Your task to perform on an android device: open app "DoorDash - Food Delivery" Image 0: 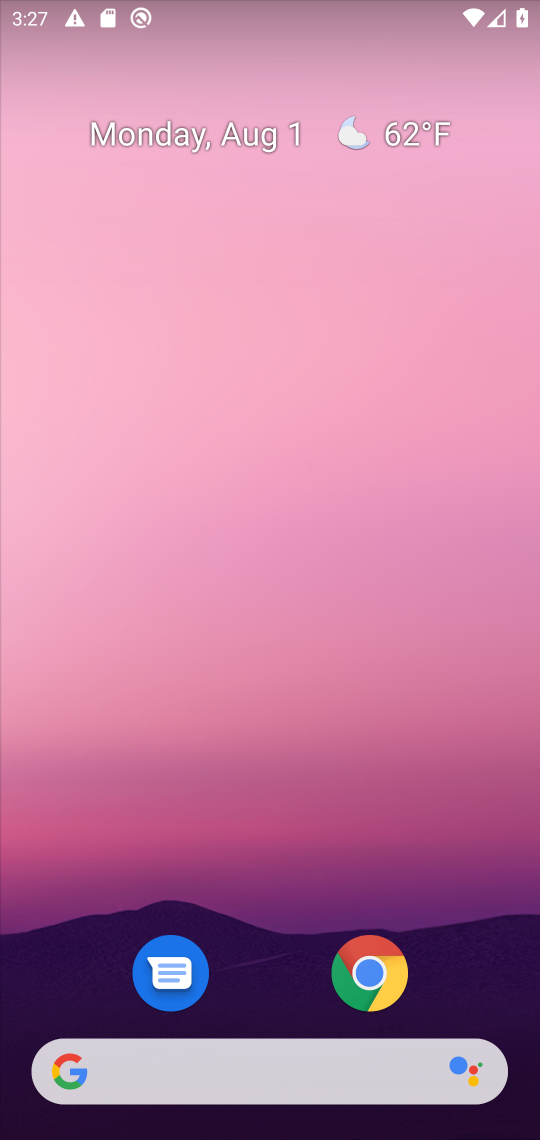
Step 0: click (330, 14)
Your task to perform on an android device: open app "DoorDash - Food Delivery" Image 1: 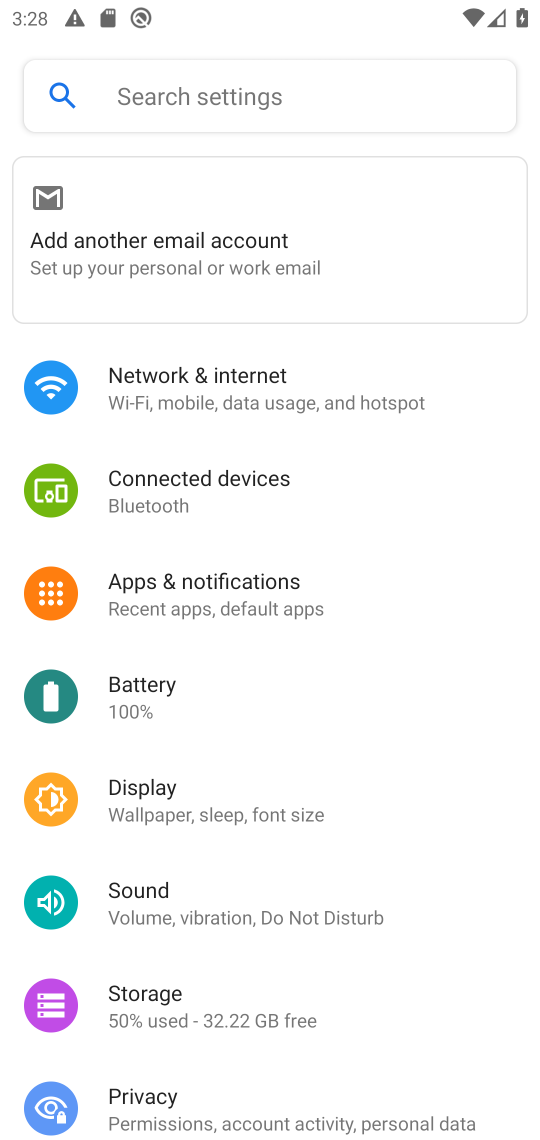
Step 1: press back button
Your task to perform on an android device: open app "DoorDash - Food Delivery" Image 2: 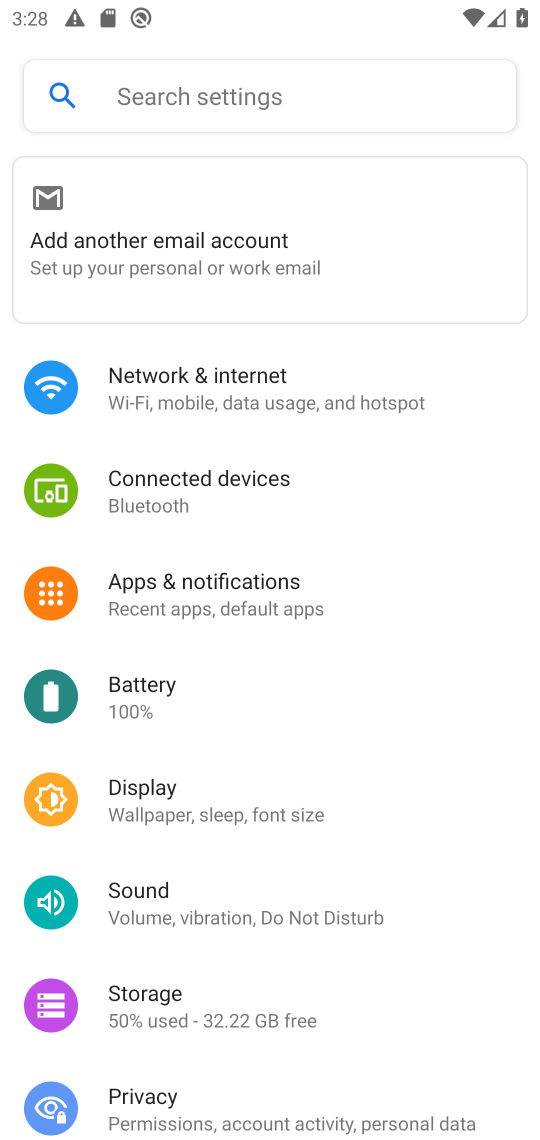
Step 2: press back button
Your task to perform on an android device: open app "DoorDash - Food Delivery" Image 3: 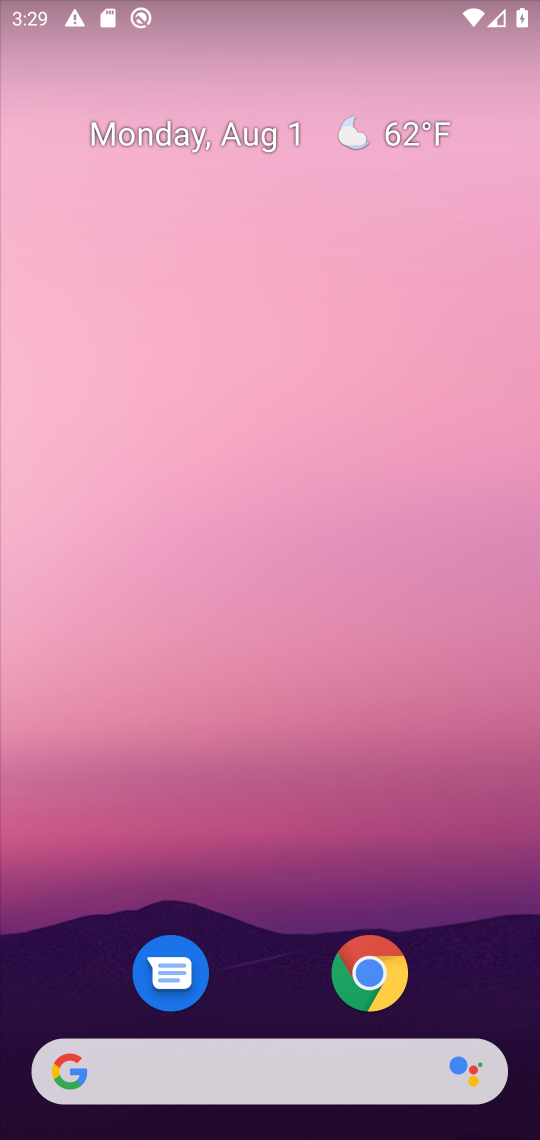
Step 3: drag from (294, 676) to (214, 263)
Your task to perform on an android device: open app "DoorDash - Food Delivery" Image 4: 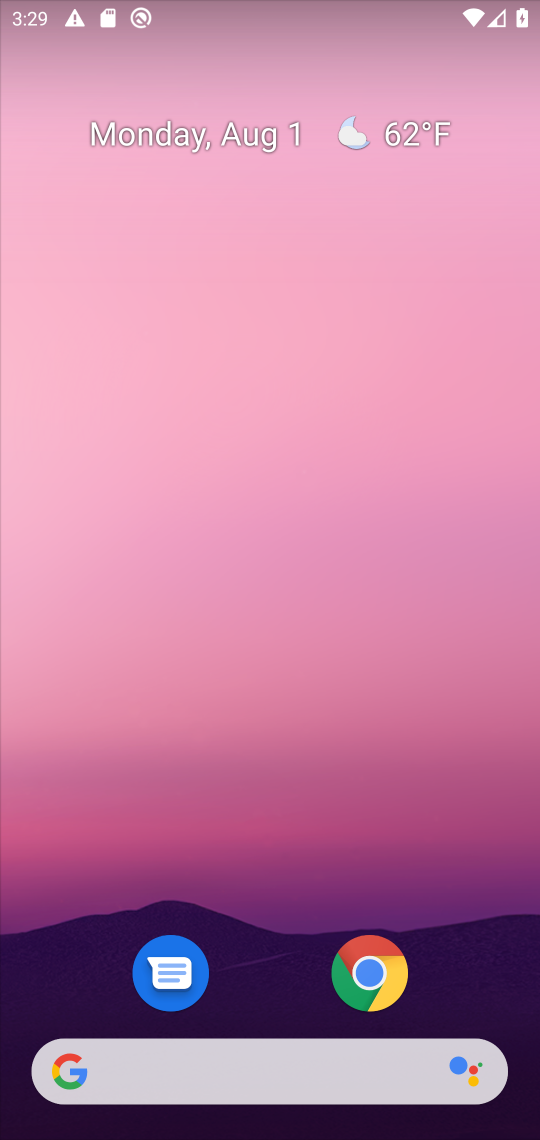
Step 4: click (97, 145)
Your task to perform on an android device: open app "DoorDash - Food Delivery" Image 5: 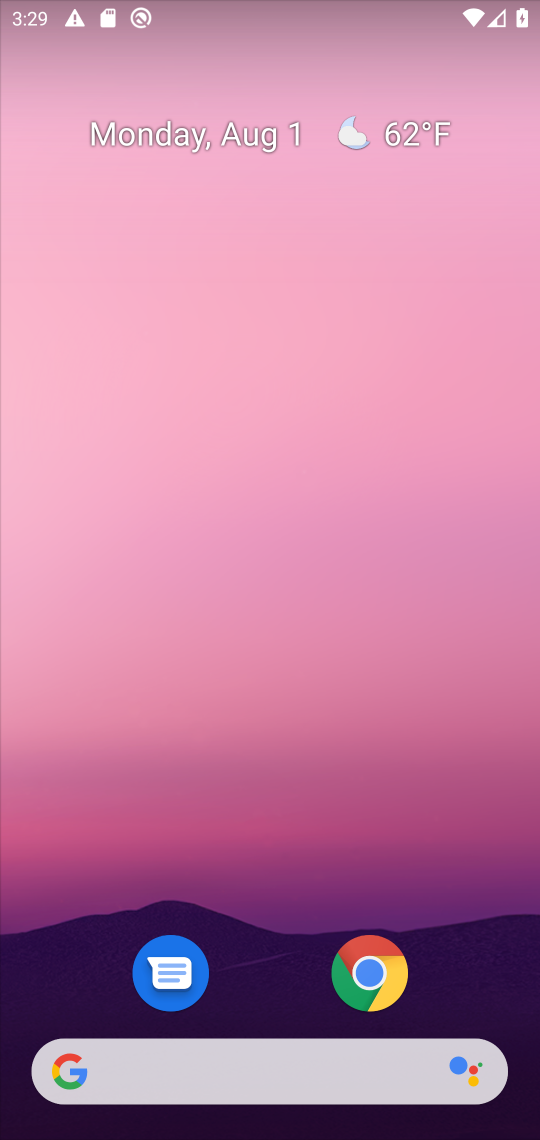
Step 5: drag from (159, 601) to (89, 227)
Your task to perform on an android device: open app "DoorDash - Food Delivery" Image 6: 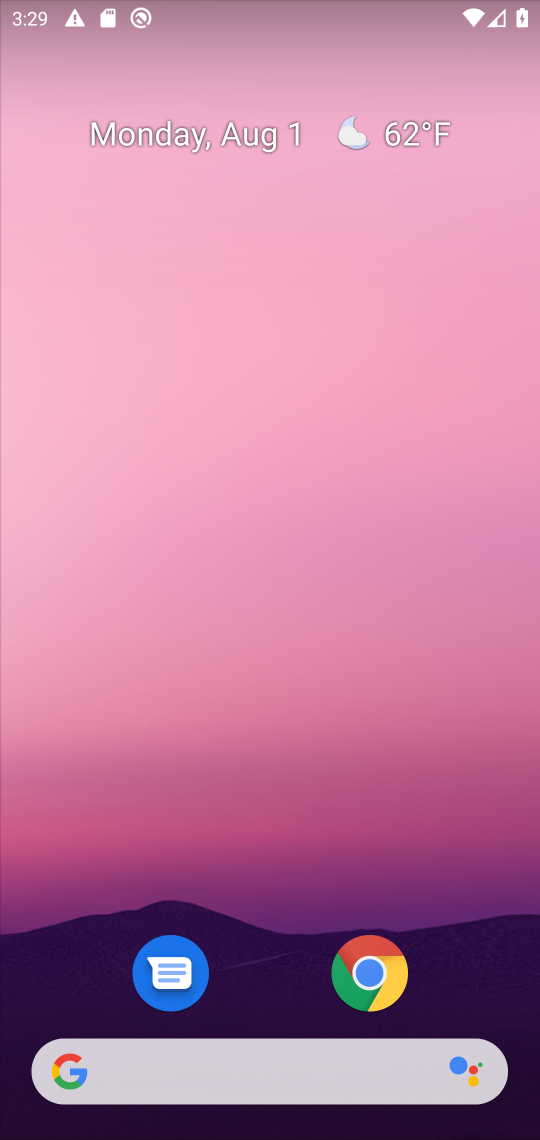
Step 6: drag from (242, 637) to (189, 195)
Your task to perform on an android device: open app "DoorDash - Food Delivery" Image 7: 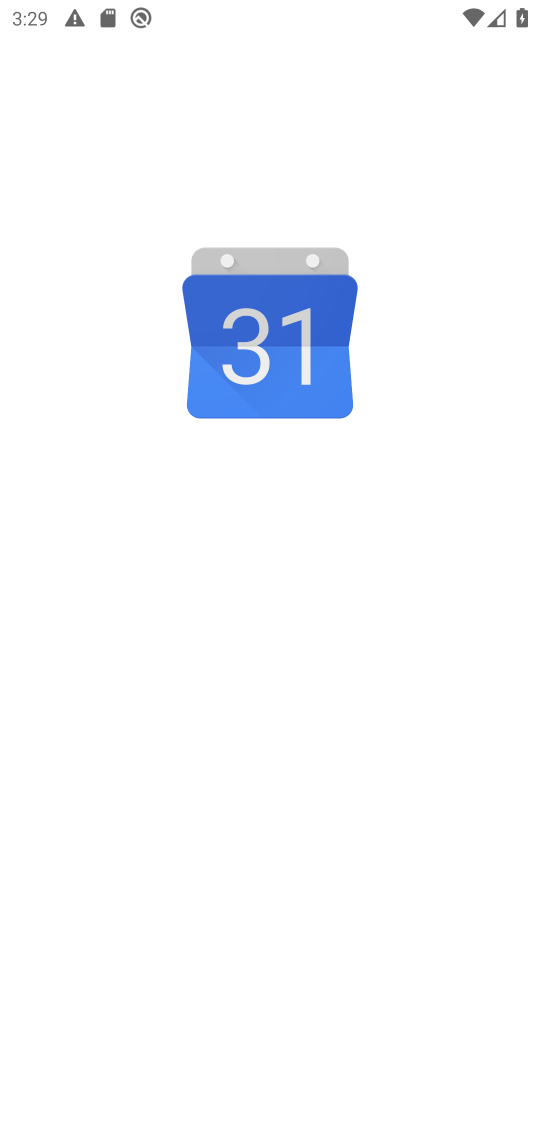
Step 7: drag from (229, 582) to (221, 347)
Your task to perform on an android device: open app "DoorDash - Food Delivery" Image 8: 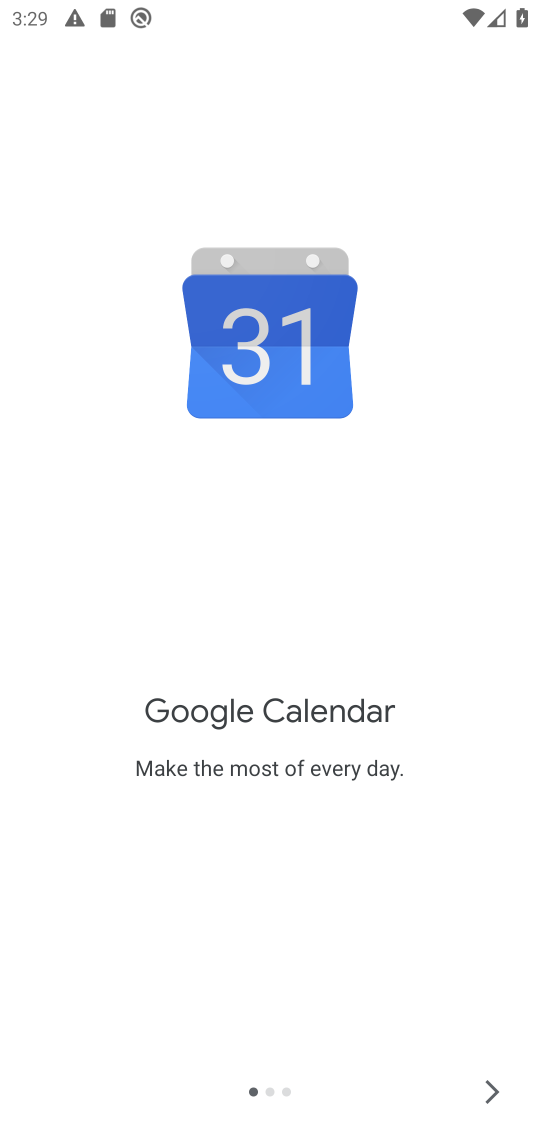
Step 8: click (142, 475)
Your task to perform on an android device: open app "DoorDash - Food Delivery" Image 9: 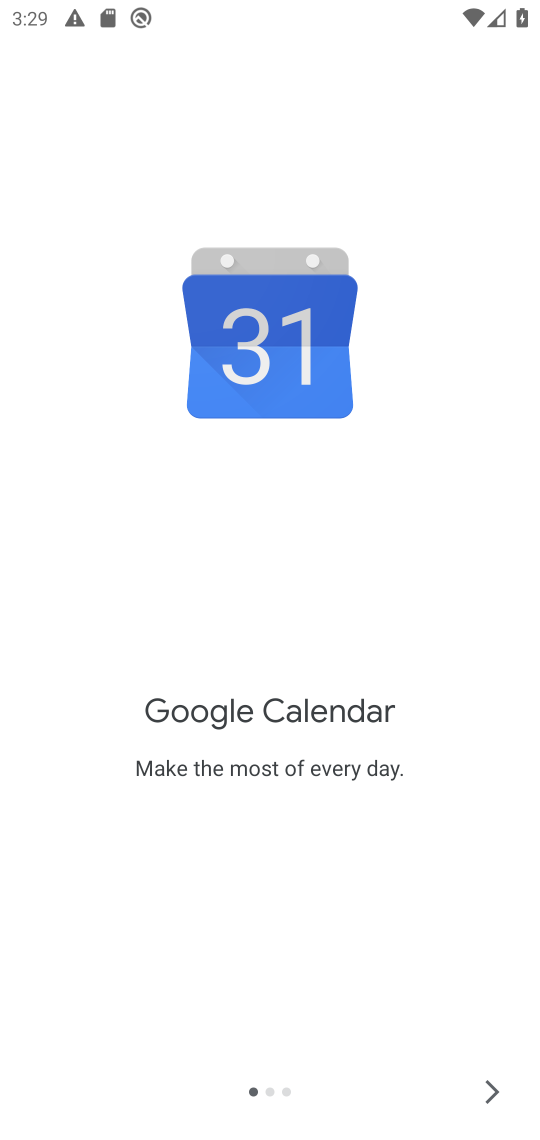
Step 9: press back button
Your task to perform on an android device: open app "DoorDash - Food Delivery" Image 10: 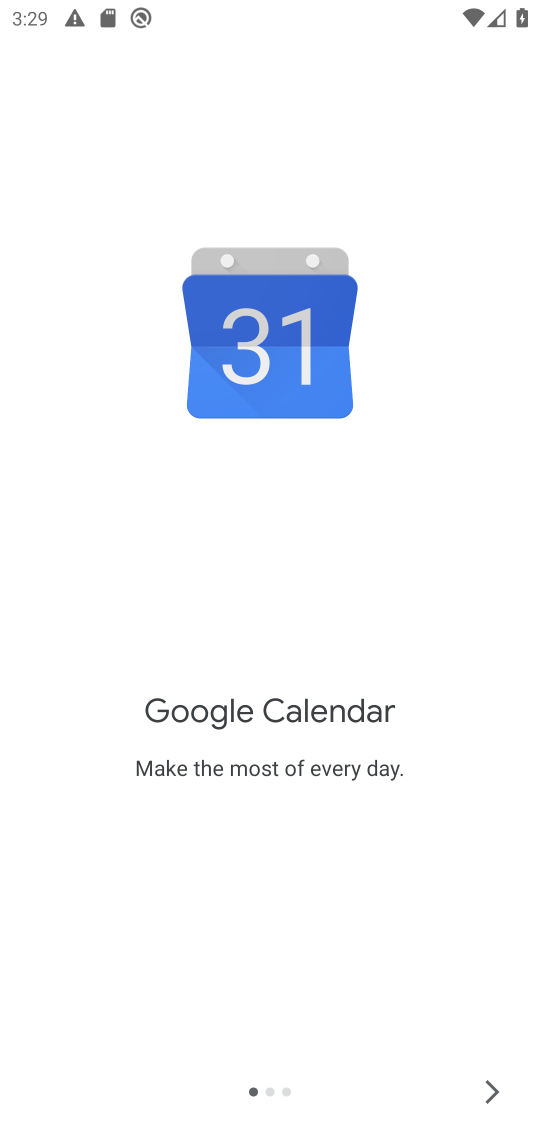
Step 10: press back button
Your task to perform on an android device: open app "DoorDash - Food Delivery" Image 11: 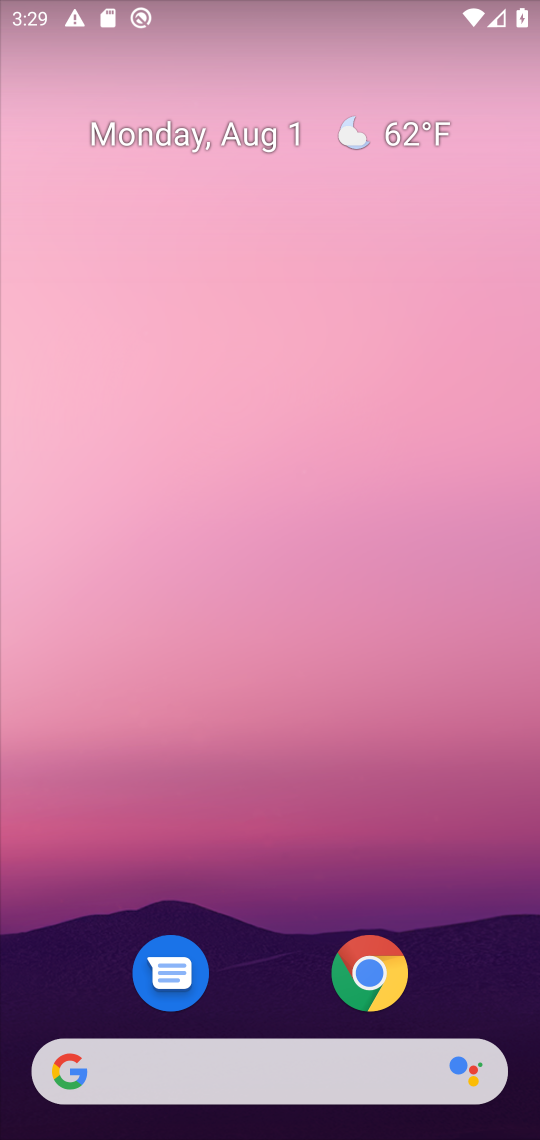
Step 11: press back button
Your task to perform on an android device: open app "DoorDash - Food Delivery" Image 12: 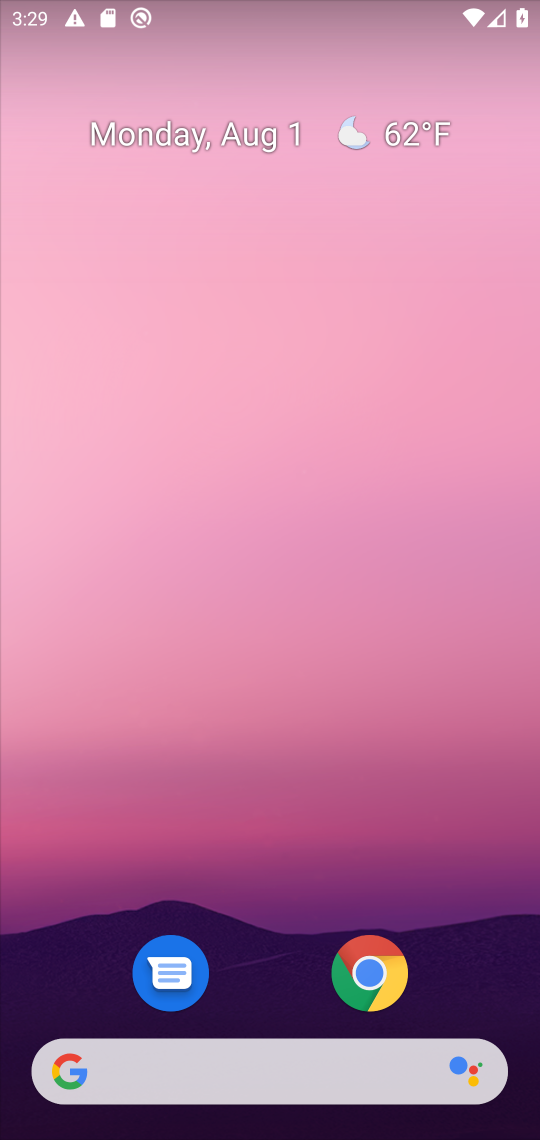
Step 12: press home button
Your task to perform on an android device: open app "DoorDash - Food Delivery" Image 13: 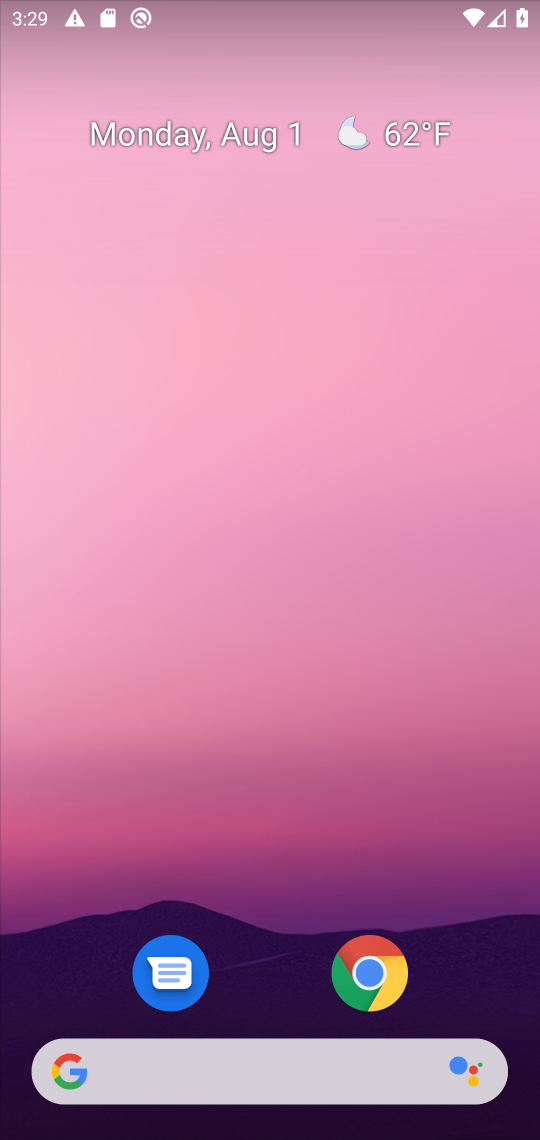
Step 13: press home button
Your task to perform on an android device: open app "DoorDash - Food Delivery" Image 14: 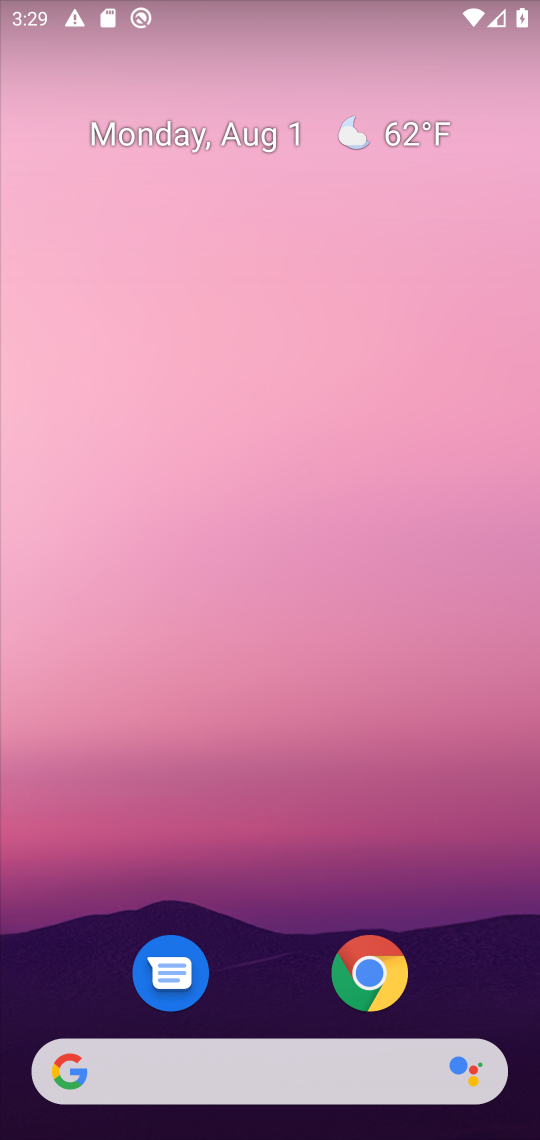
Step 14: click (341, 244)
Your task to perform on an android device: open app "DoorDash - Food Delivery" Image 15: 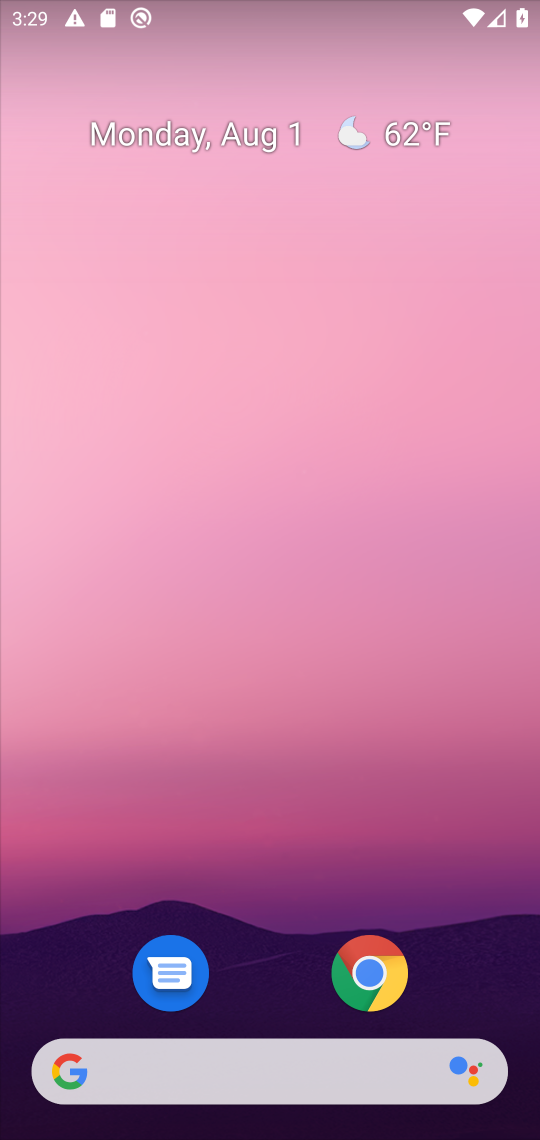
Step 15: drag from (318, 1060) to (239, 286)
Your task to perform on an android device: open app "DoorDash - Food Delivery" Image 16: 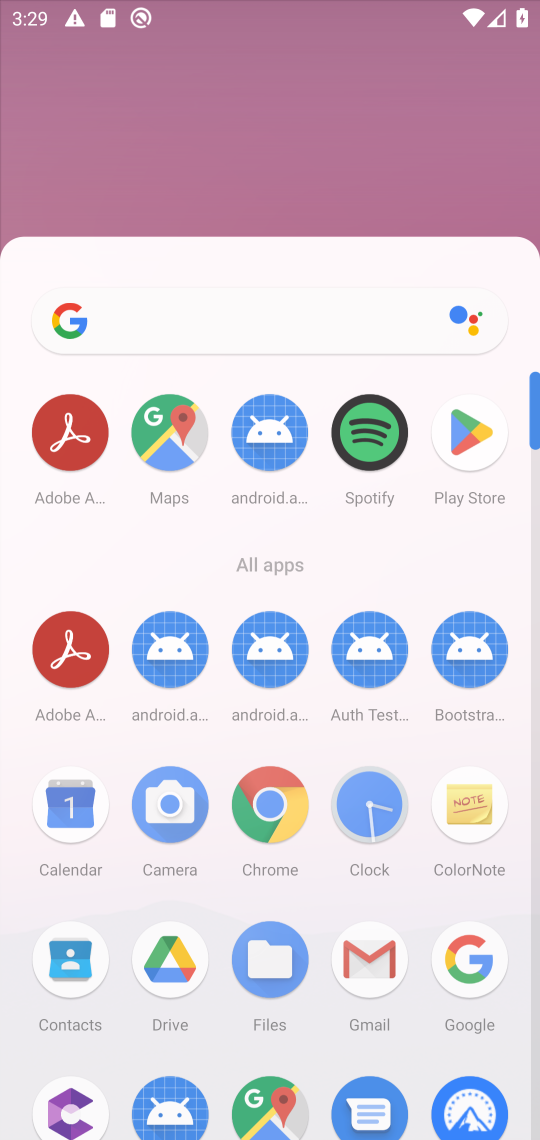
Step 16: drag from (173, 947) to (140, 324)
Your task to perform on an android device: open app "DoorDash - Food Delivery" Image 17: 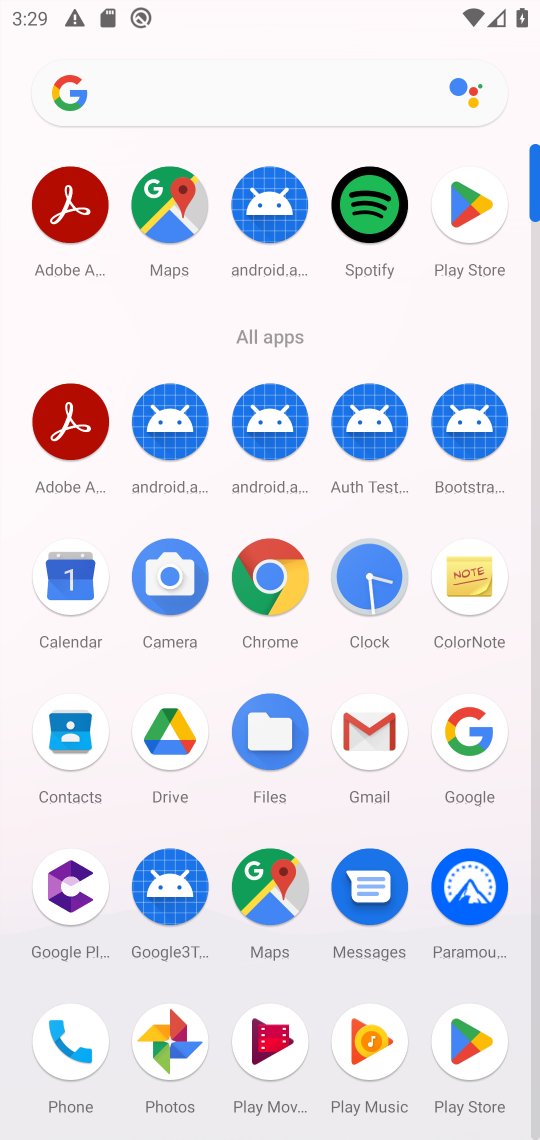
Step 17: drag from (264, 837) to (217, 376)
Your task to perform on an android device: open app "DoorDash - Food Delivery" Image 18: 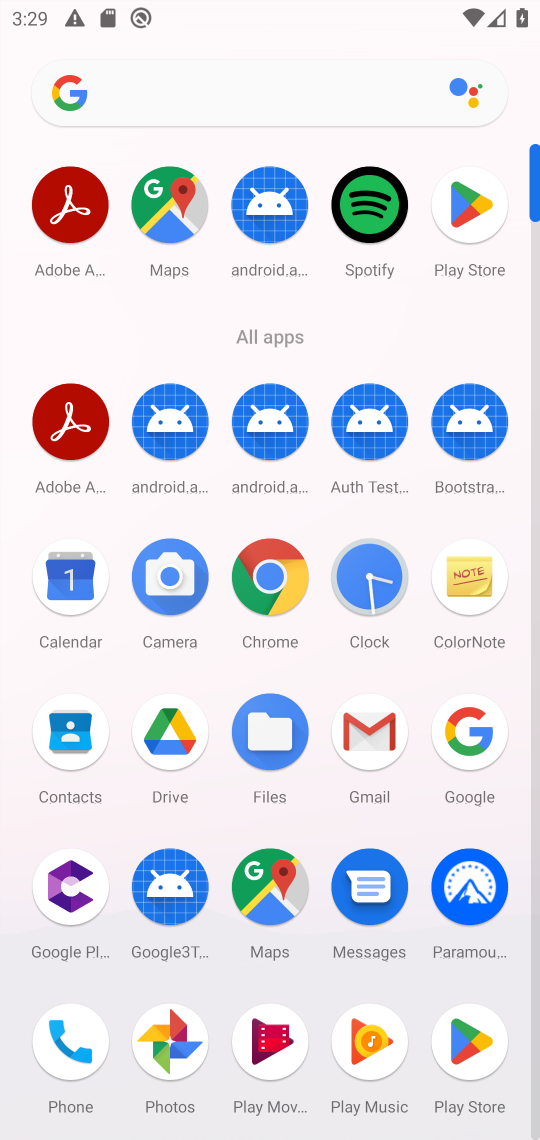
Step 18: click (475, 211)
Your task to perform on an android device: open app "DoorDash - Food Delivery" Image 19: 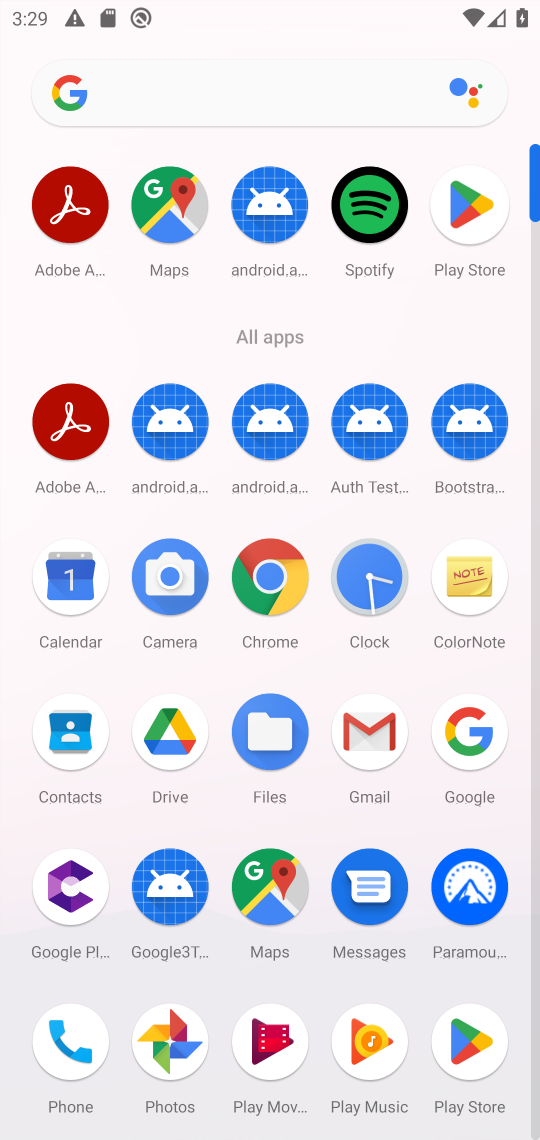
Step 19: click (474, 214)
Your task to perform on an android device: open app "DoorDash - Food Delivery" Image 20: 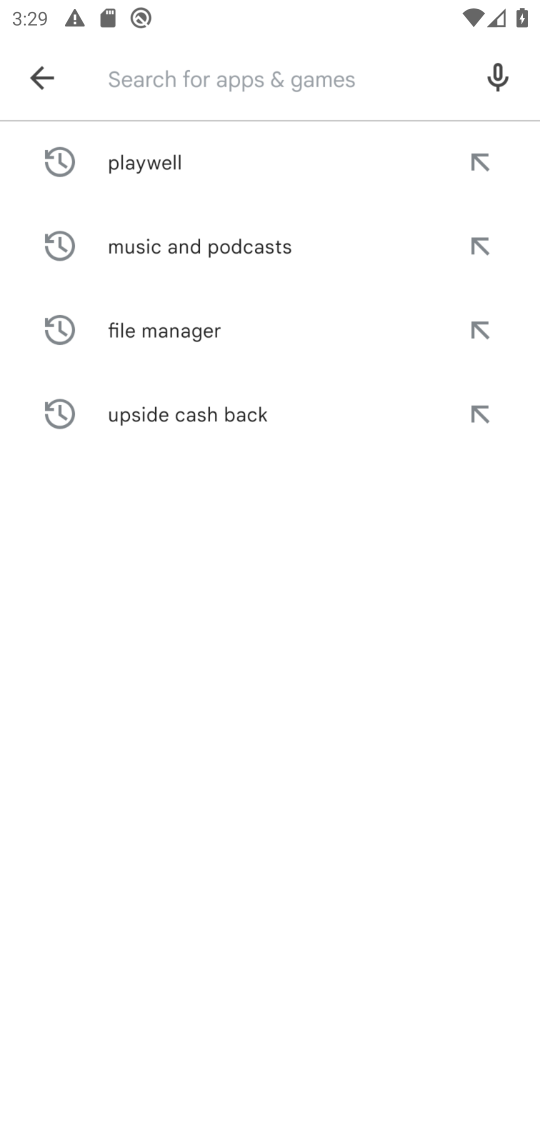
Step 20: click (474, 220)
Your task to perform on an android device: open app "DoorDash - Food Delivery" Image 21: 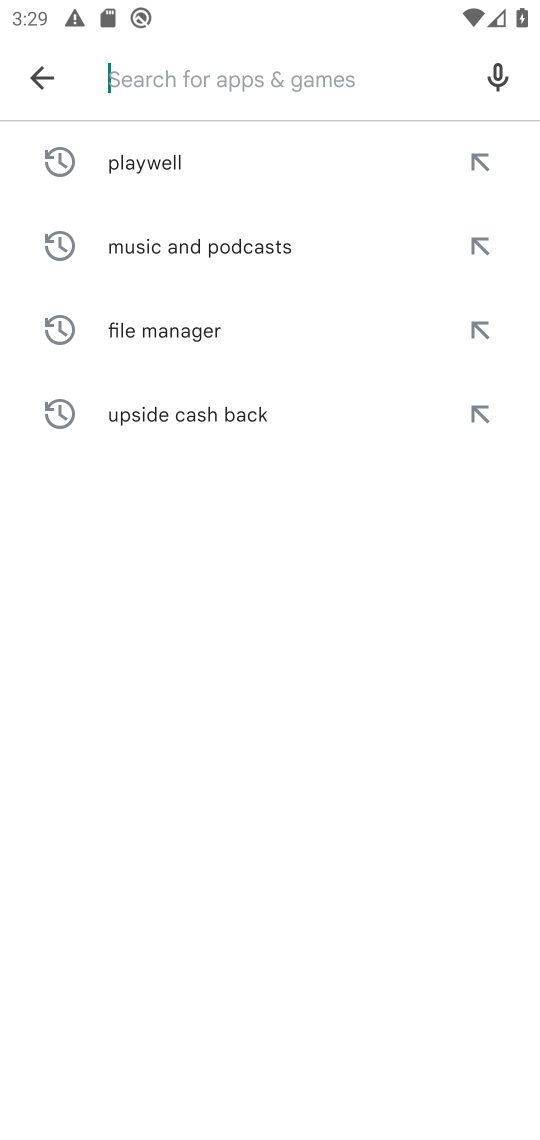
Step 21: click (471, 224)
Your task to perform on an android device: open app "DoorDash - Food Delivery" Image 22: 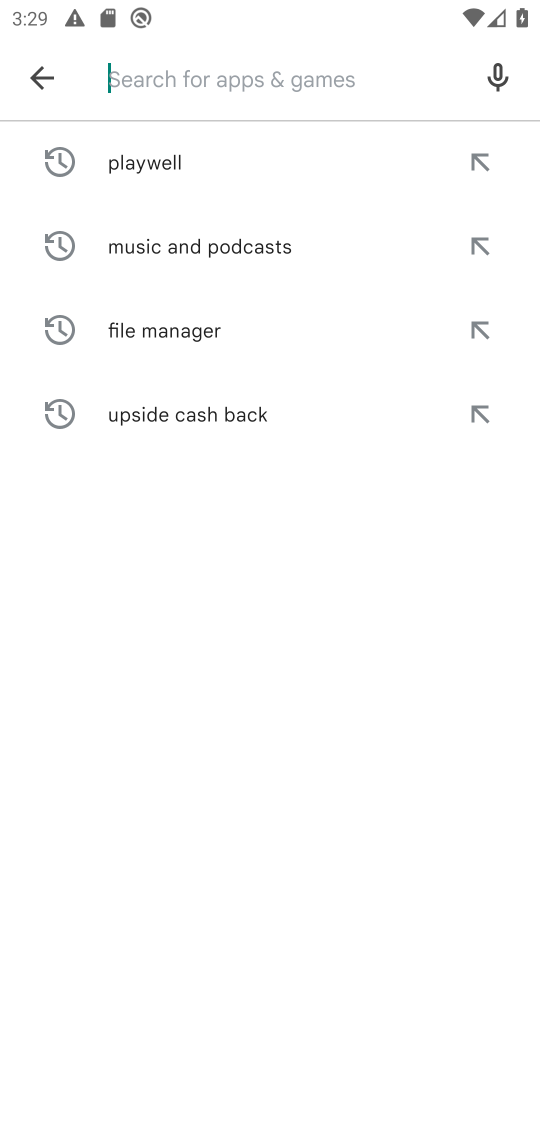
Step 22: click (470, 225)
Your task to perform on an android device: open app "DoorDash - Food Delivery" Image 23: 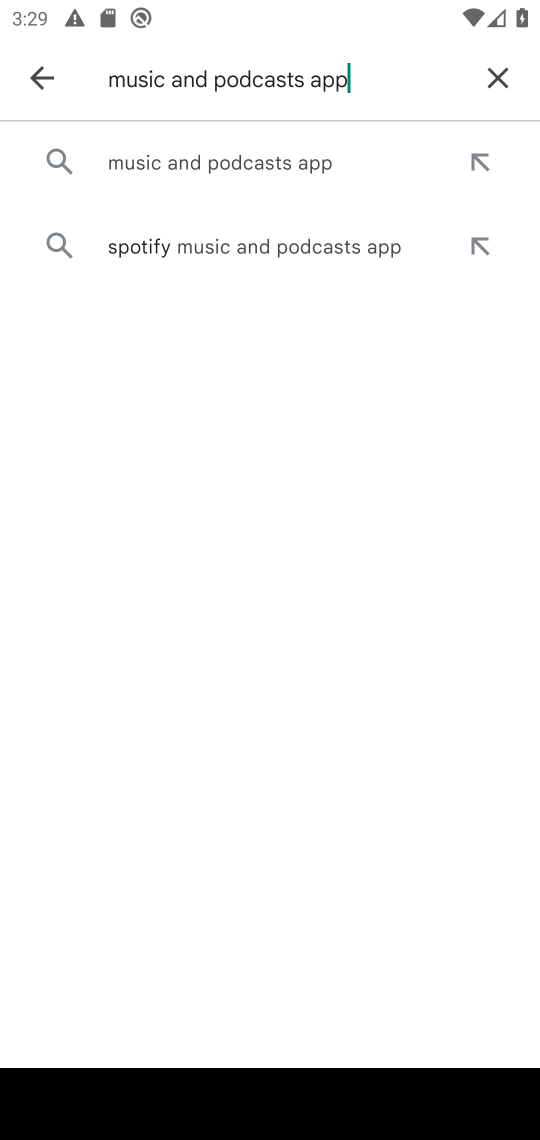
Step 23: click (499, 66)
Your task to perform on an android device: open app "DoorDash - Food Delivery" Image 24: 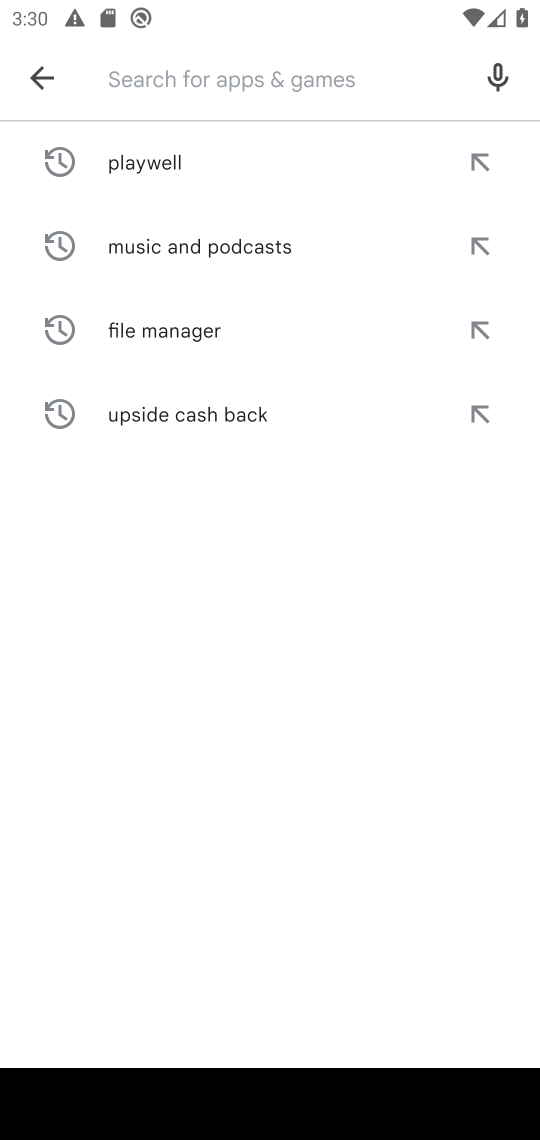
Step 24: type "DoorDarsh"
Your task to perform on an android device: open app "DoorDash - Food Delivery" Image 25: 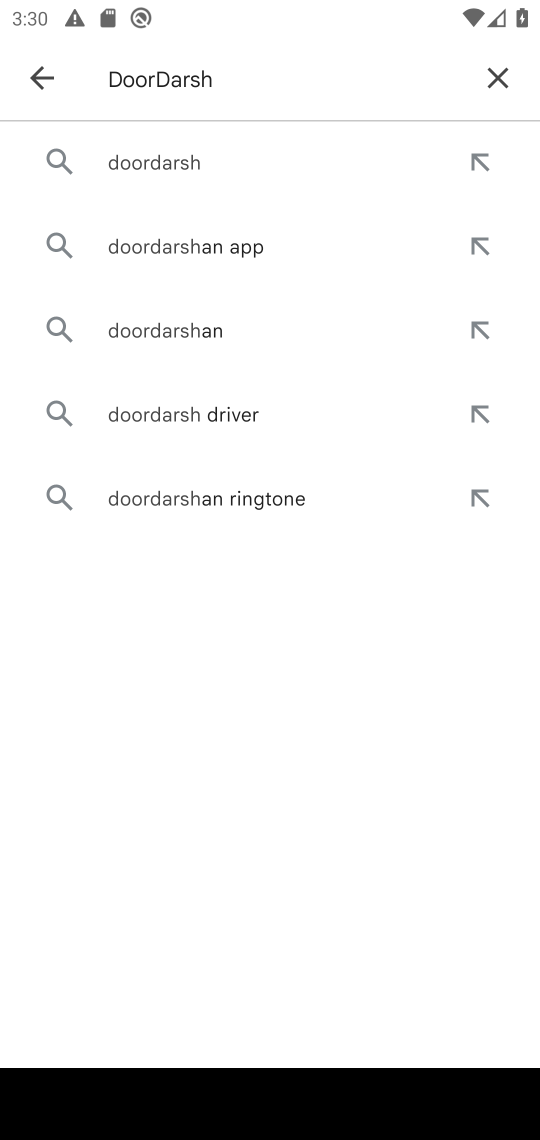
Step 25: click (144, 138)
Your task to perform on an android device: open app "DoorDash - Food Delivery" Image 26: 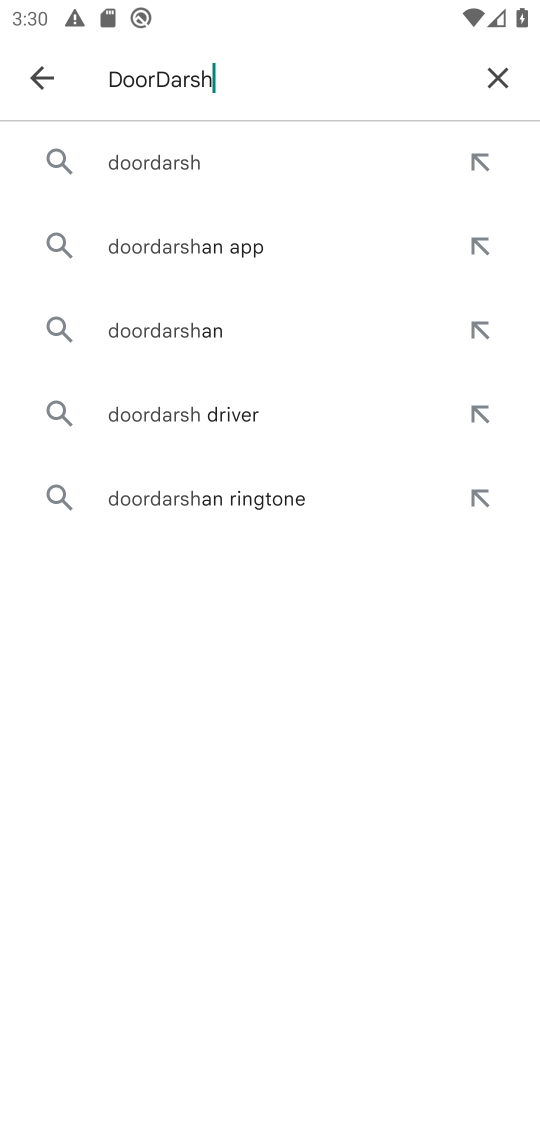
Step 26: click (484, 166)
Your task to perform on an android device: open app "DoorDash - Food Delivery" Image 27: 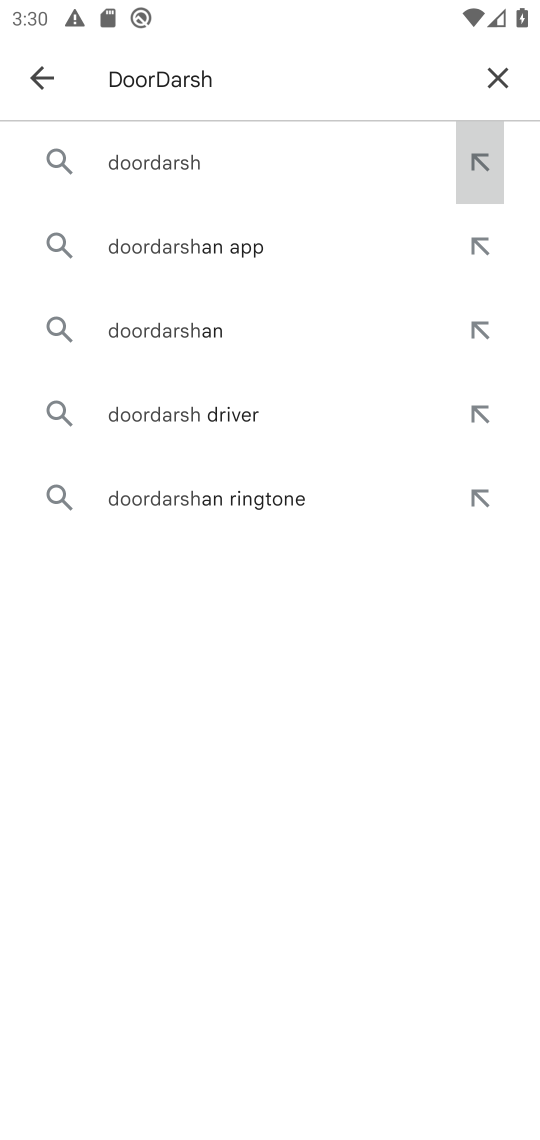
Step 27: click (486, 166)
Your task to perform on an android device: open app "DoorDash - Food Delivery" Image 28: 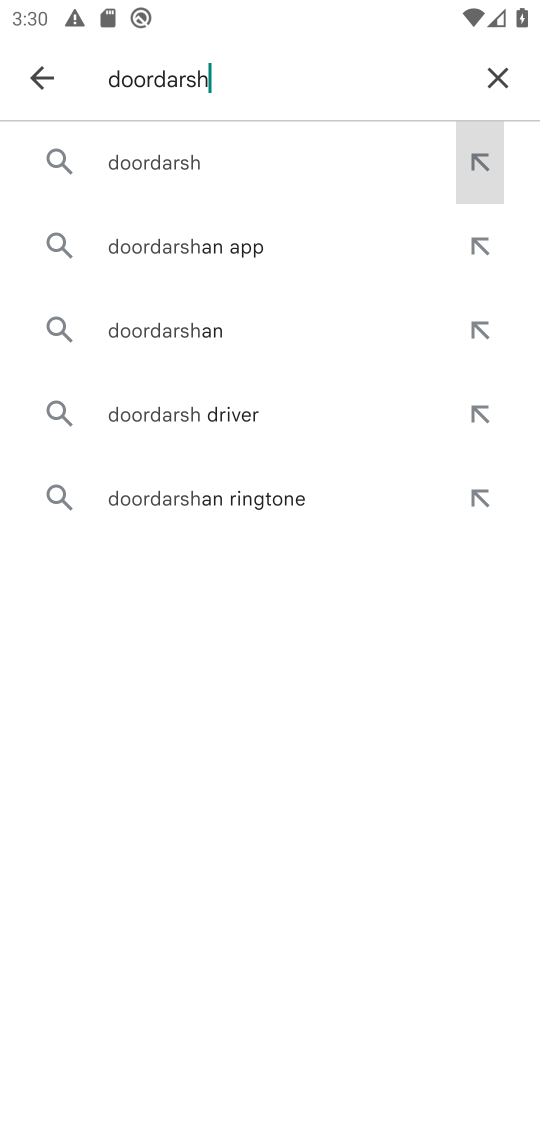
Step 28: click (486, 166)
Your task to perform on an android device: open app "DoorDash - Food Delivery" Image 29: 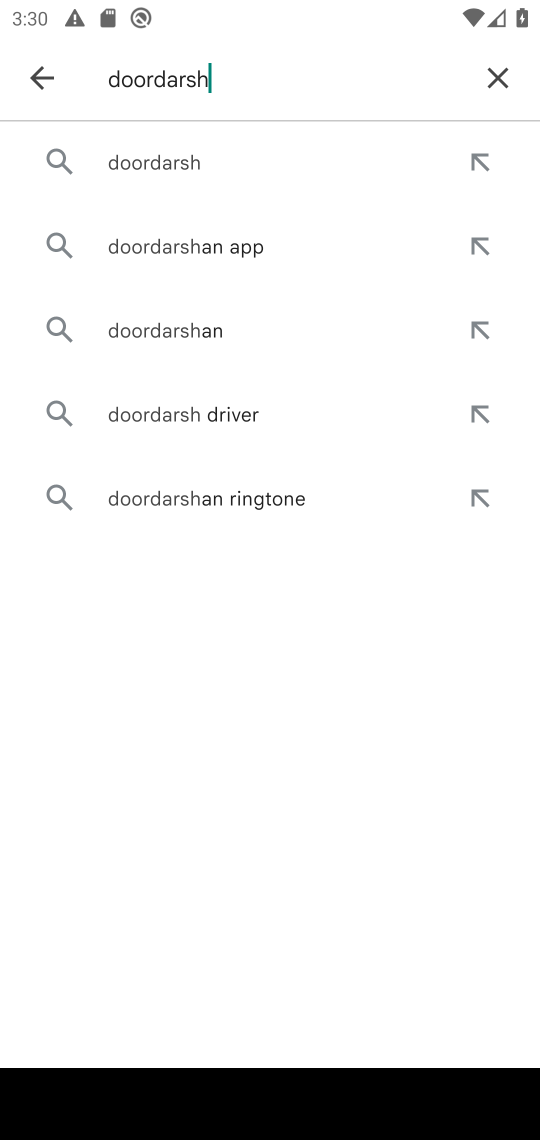
Step 29: click (145, 167)
Your task to perform on an android device: open app "DoorDash - Food Delivery" Image 30: 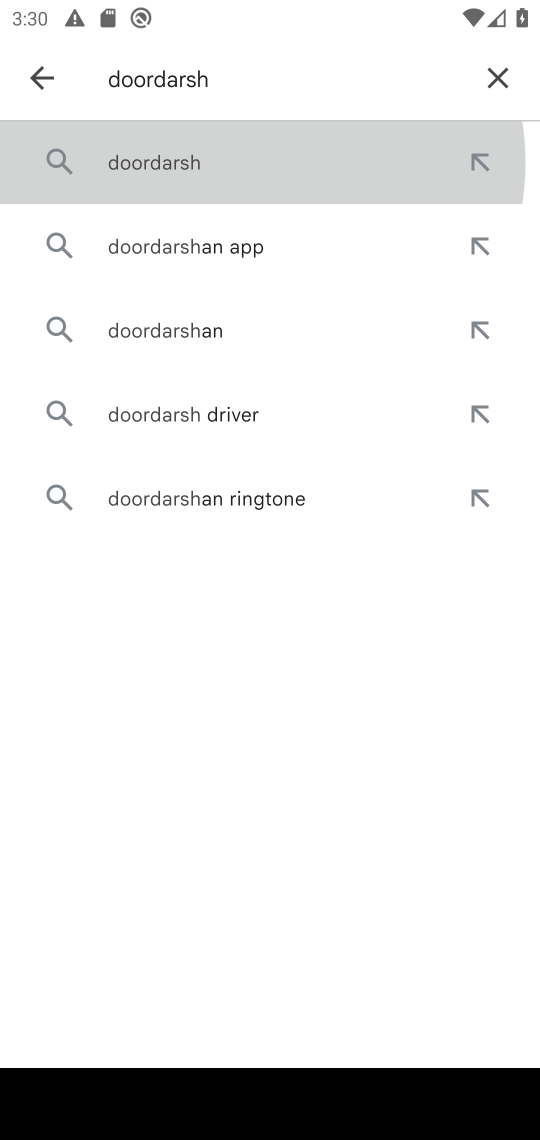
Step 30: click (170, 160)
Your task to perform on an android device: open app "DoorDash - Food Delivery" Image 31: 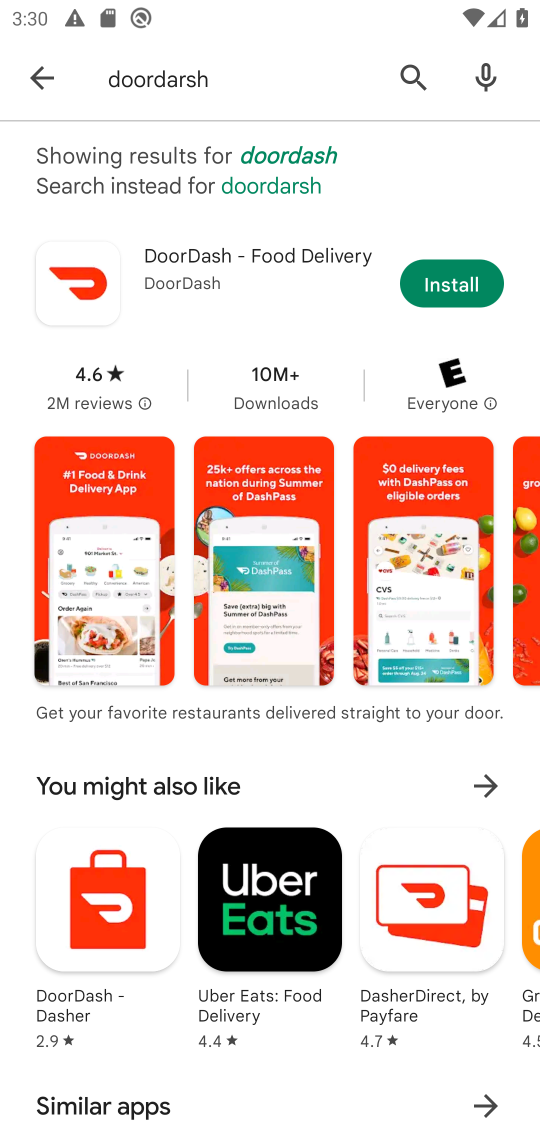
Step 31: task complete